Your task to perform on an android device: change alarm snooze length Image 0: 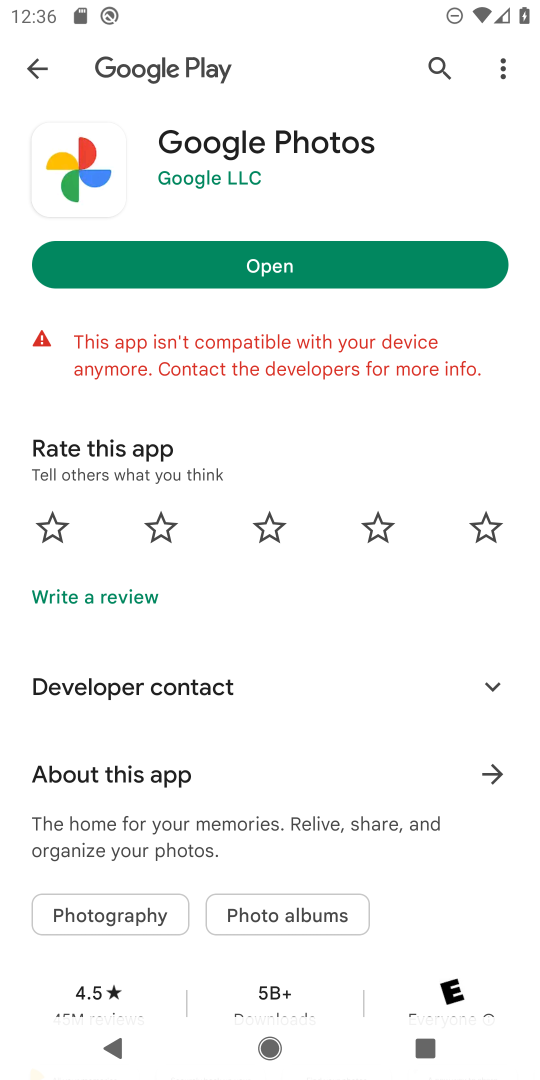
Step 0: press back button
Your task to perform on an android device: change alarm snooze length Image 1: 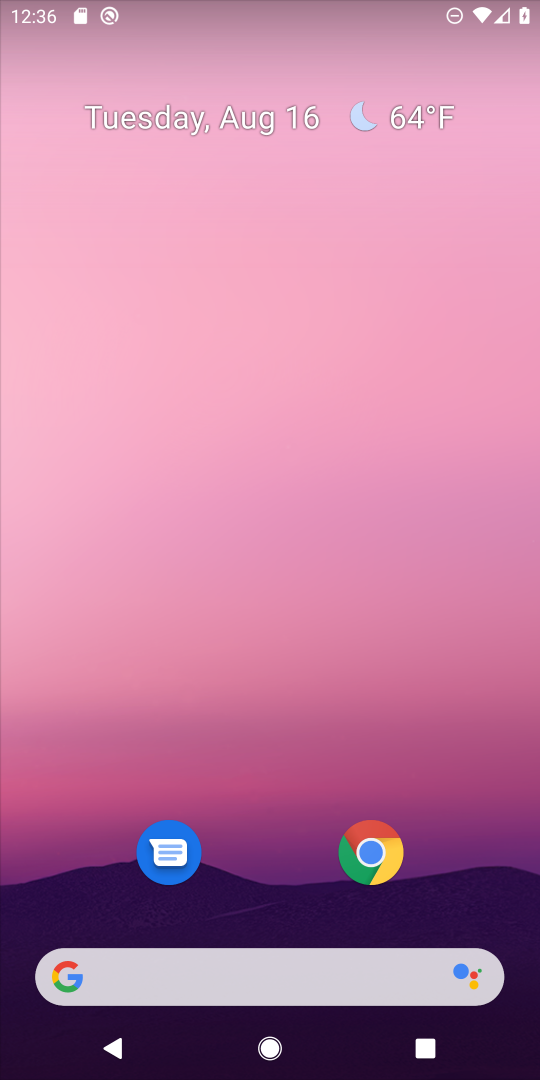
Step 1: drag from (249, 875) to (380, 118)
Your task to perform on an android device: change alarm snooze length Image 2: 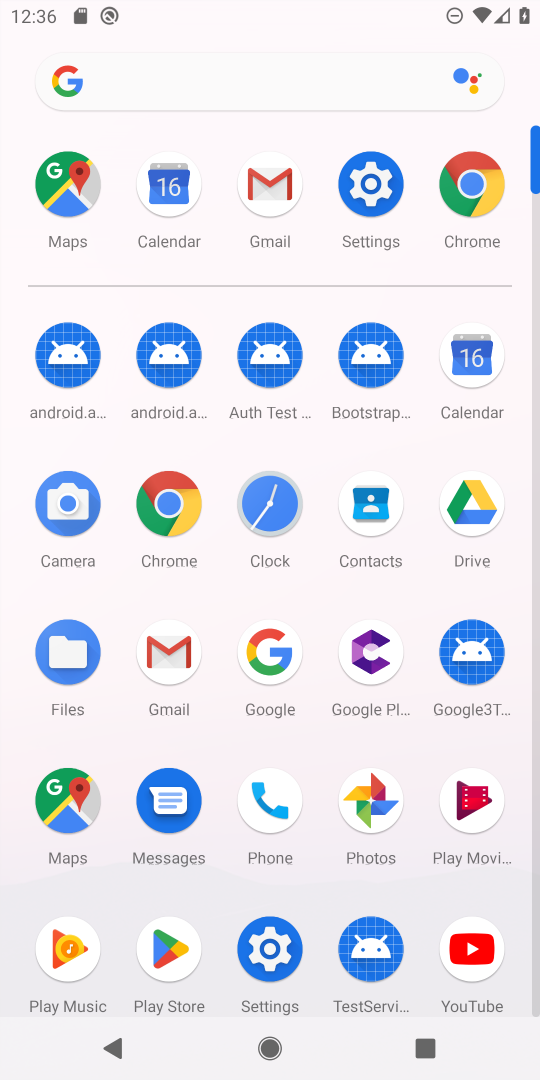
Step 2: click (273, 499)
Your task to perform on an android device: change alarm snooze length Image 3: 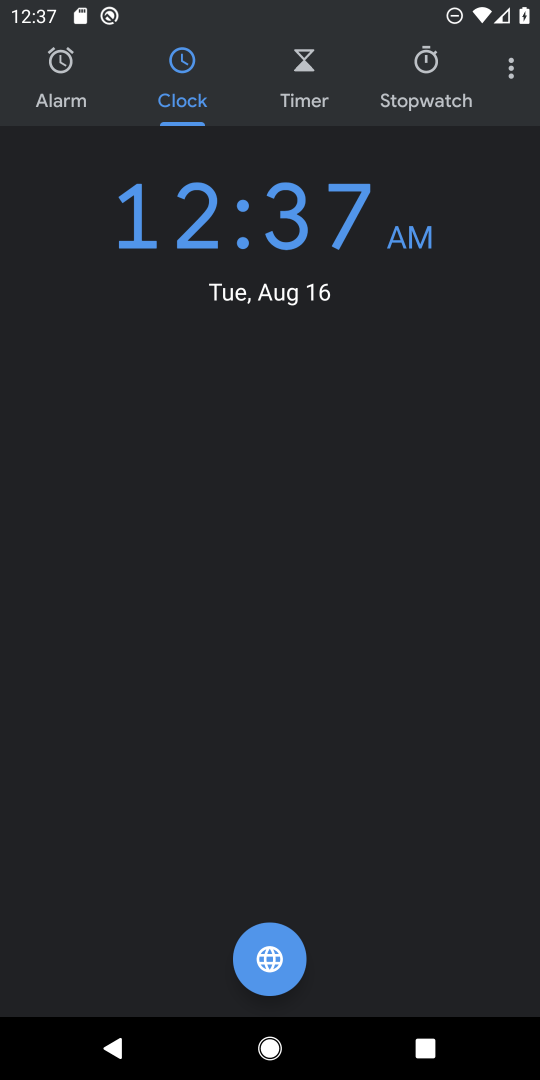
Step 3: click (513, 60)
Your task to perform on an android device: change alarm snooze length Image 4: 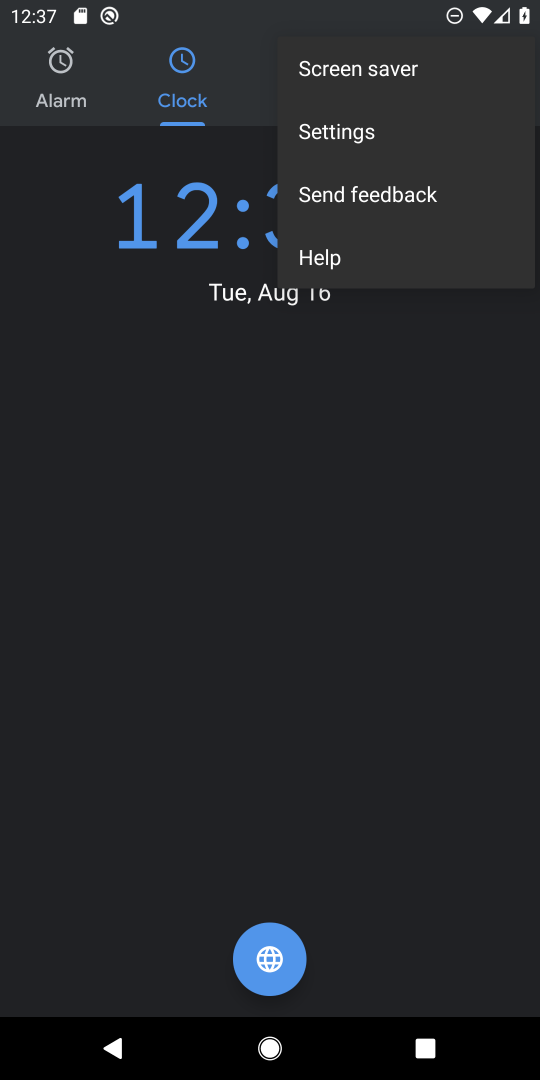
Step 4: click (422, 117)
Your task to perform on an android device: change alarm snooze length Image 5: 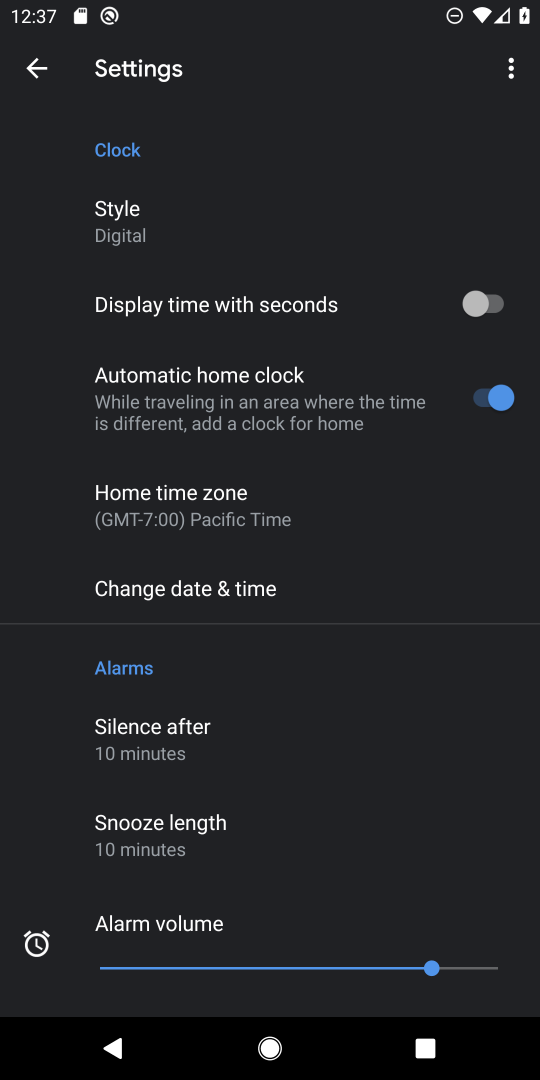
Step 5: click (174, 843)
Your task to perform on an android device: change alarm snooze length Image 6: 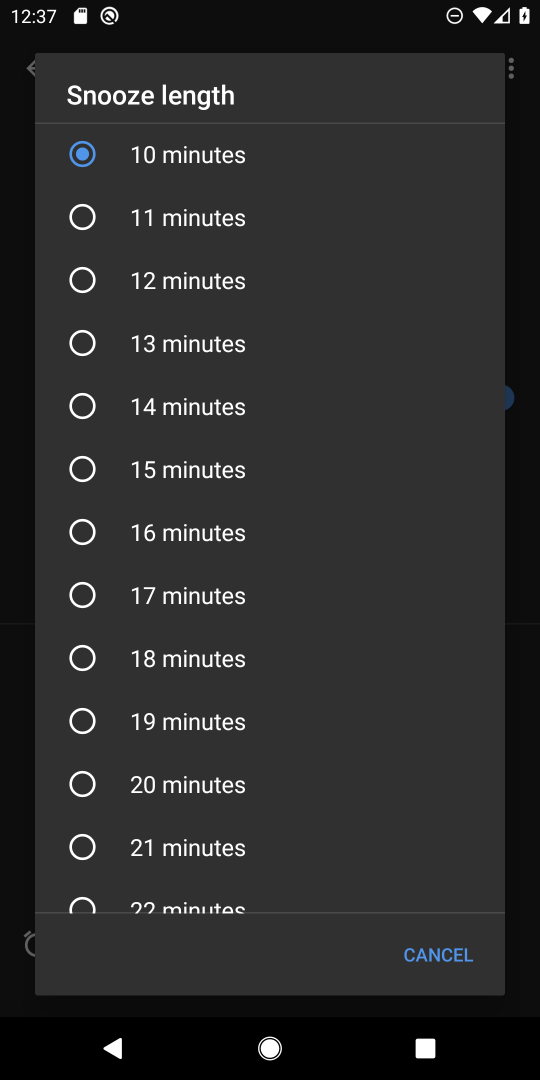
Step 6: click (141, 214)
Your task to perform on an android device: change alarm snooze length Image 7: 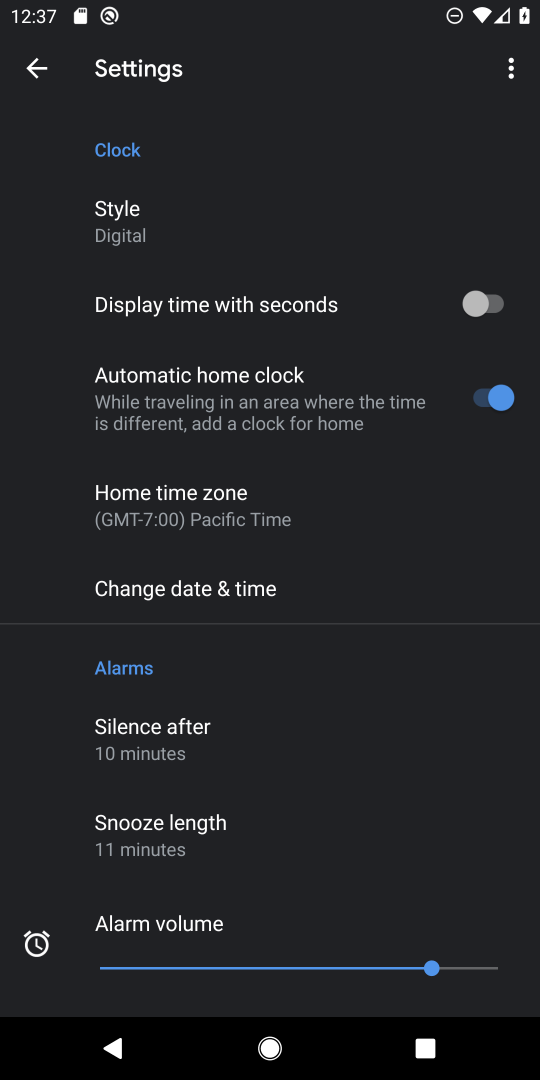
Step 7: task complete